Your task to perform on an android device: Go to notification settings Image 0: 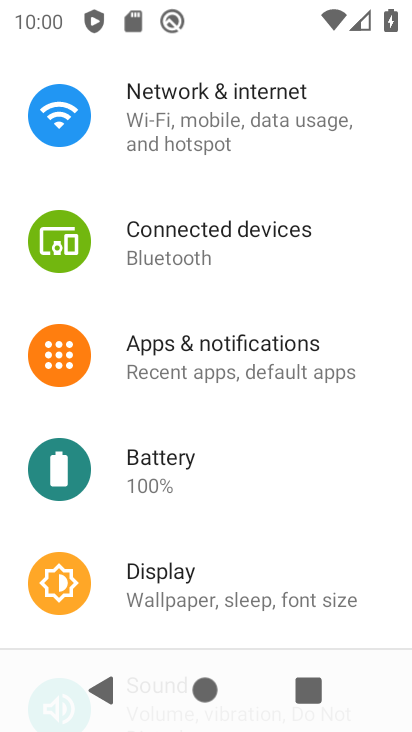
Step 0: click (227, 372)
Your task to perform on an android device: Go to notification settings Image 1: 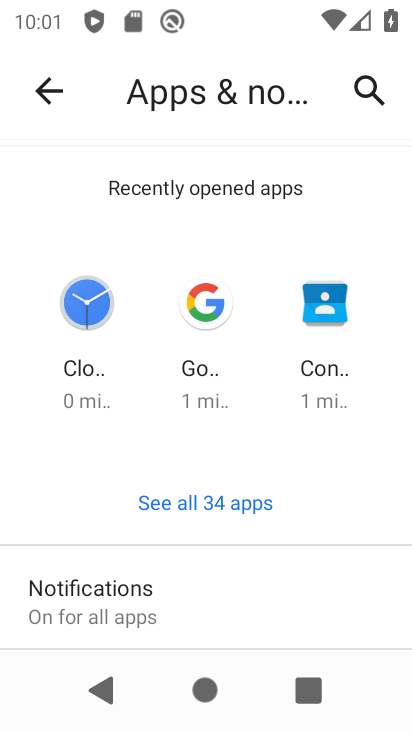
Step 1: drag from (263, 594) to (285, 269)
Your task to perform on an android device: Go to notification settings Image 2: 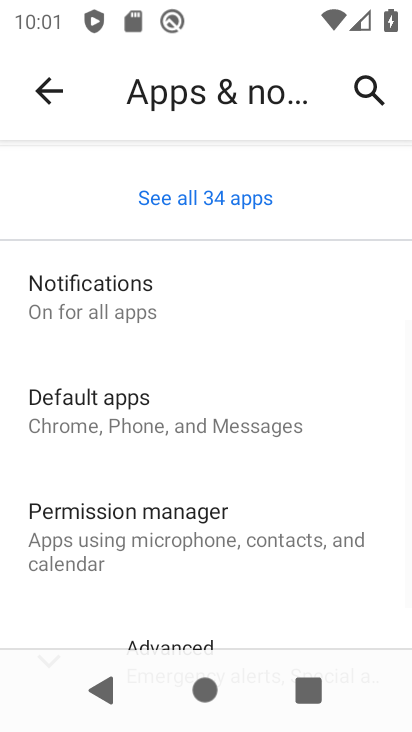
Step 2: click (192, 306)
Your task to perform on an android device: Go to notification settings Image 3: 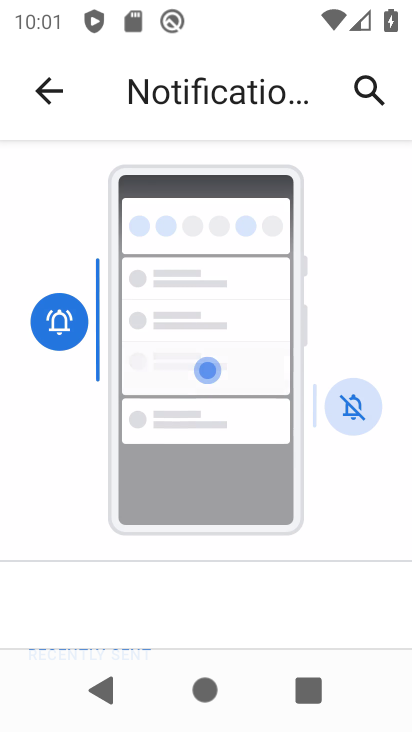
Step 3: task complete